Your task to perform on an android device: check battery use Image 0: 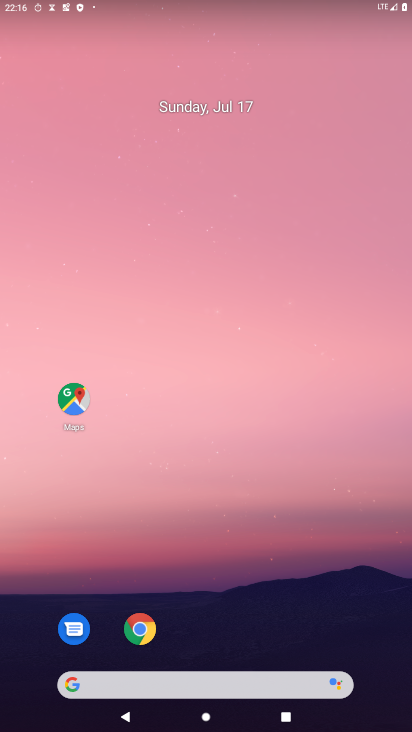
Step 0: drag from (224, 723) to (268, 69)
Your task to perform on an android device: check battery use Image 1: 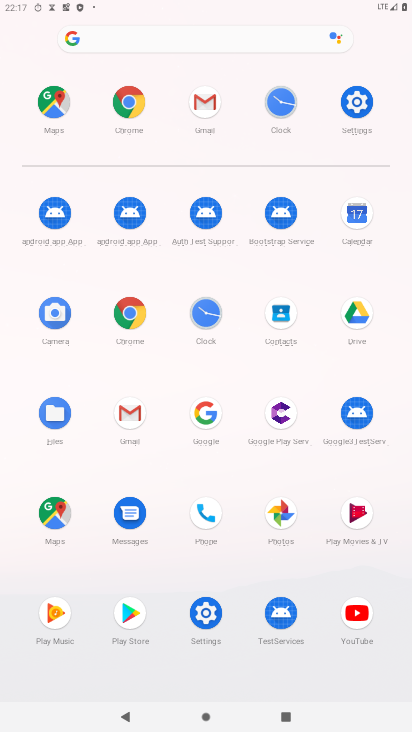
Step 1: click (358, 108)
Your task to perform on an android device: check battery use Image 2: 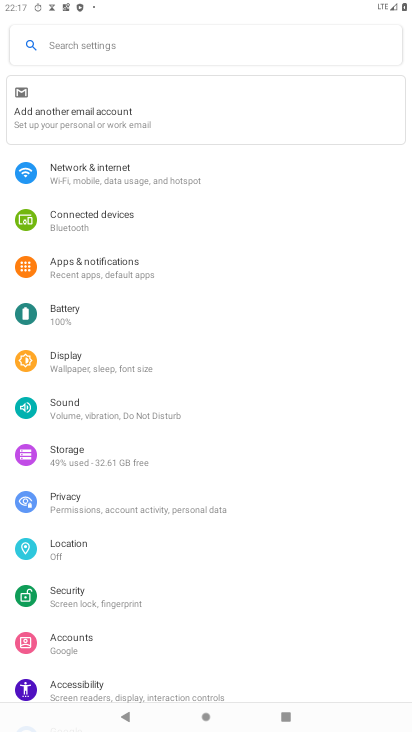
Step 2: click (62, 310)
Your task to perform on an android device: check battery use Image 3: 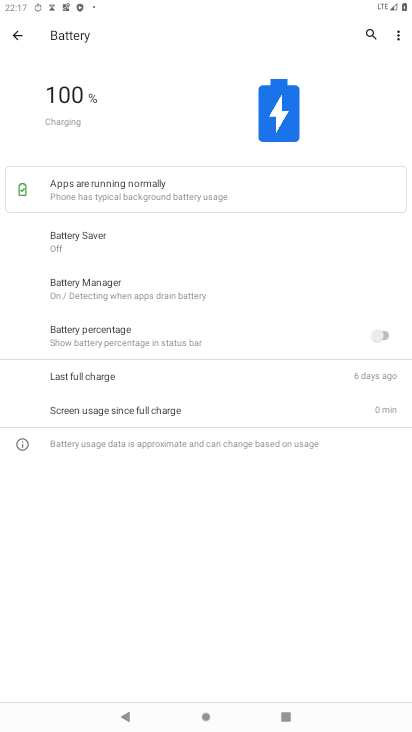
Step 3: click (399, 36)
Your task to perform on an android device: check battery use Image 4: 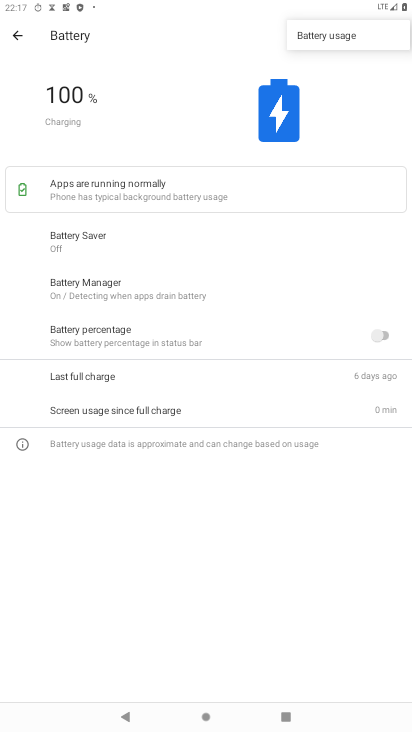
Step 4: click (338, 33)
Your task to perform on an android device: check battery use Image 5: 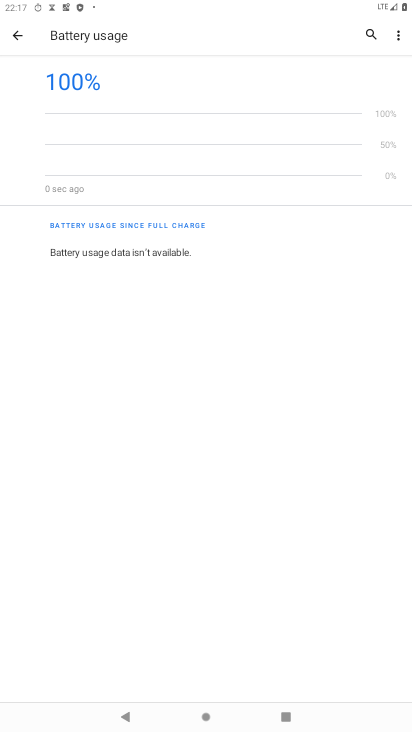
Step 5: task complete